Your task to perform on an android device: Is it going to rain today? Image 0: 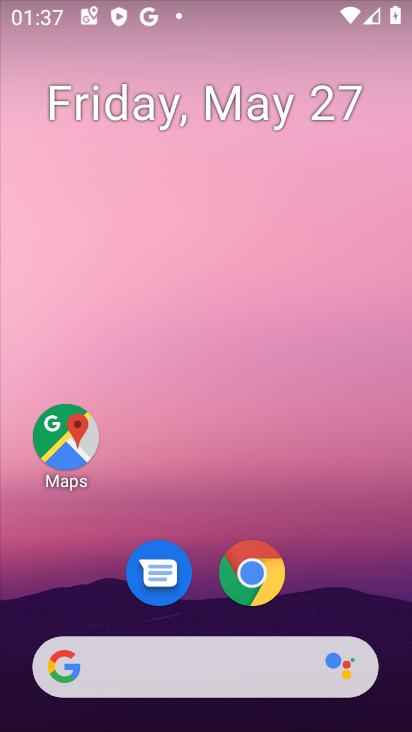
Step 0: click (187, 677)
Your task to perform on an android device: Is it going to rain today? Image 1: 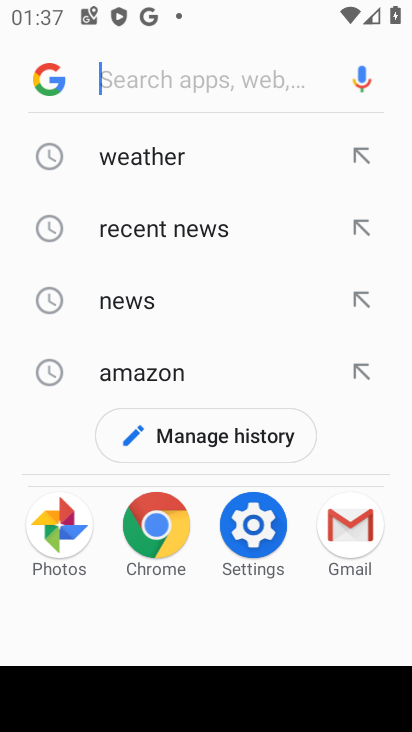
Step 1: click (130, 155)
Your task to perform on an android device: Is it going to rain today? Image 2: 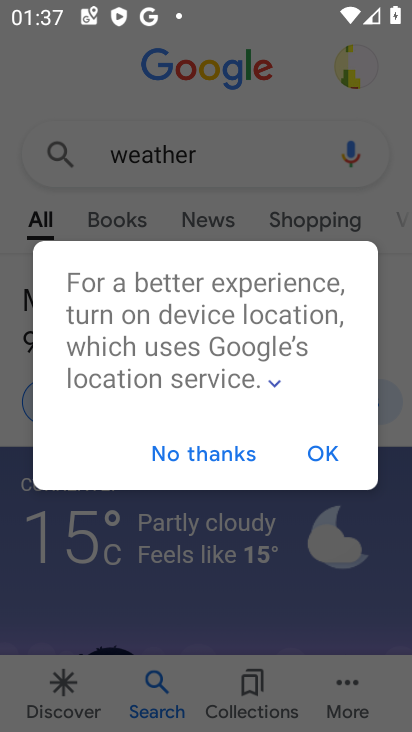
Step 2: click (327, 450)
Your task to perform on an android device: Is it going to rain today? Image 3: 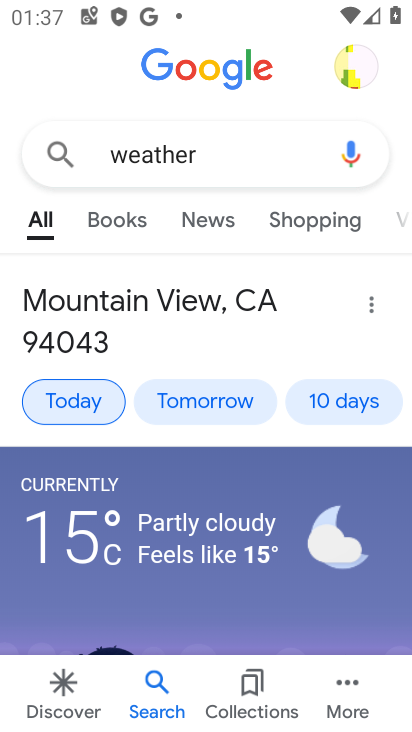
Step 3: click (97, 403)
Your task to perform on an android device: Is it going to rain today? Image 4: 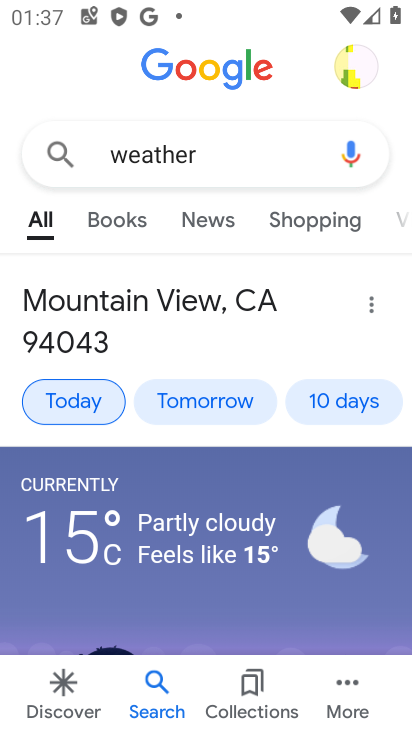
Step 4: task complete